Your task to perform on an android device: Go to display settings Image 0: 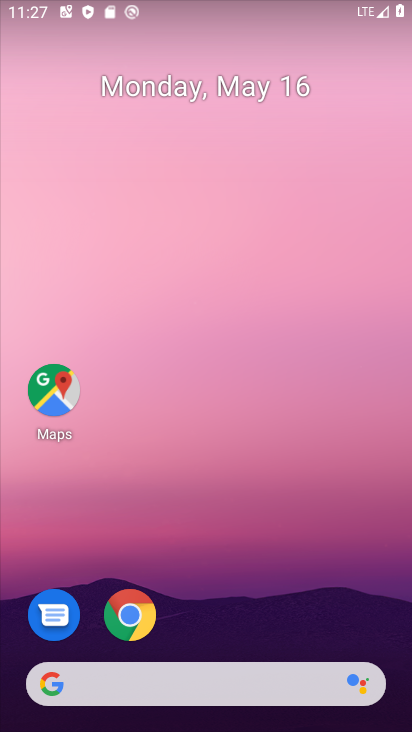
Step 0: drag from (226, 591) to (236, 129)
Your task to perform on an android device: Go to display settings Image 1: 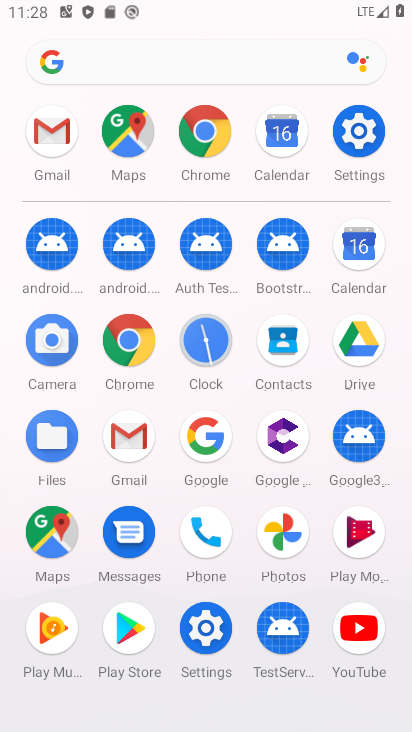
Step 1: click (197, 637)
Your task to perform on an android device: Go to display settings Image 2: 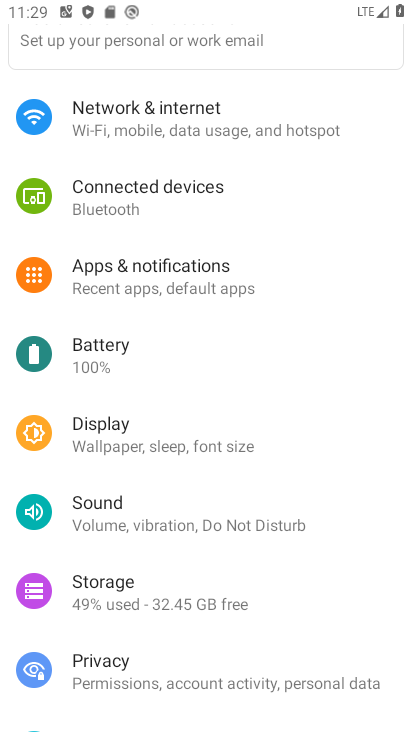
Step 2: click (126, 438)
Your task to perform on an android device: Go to display settings Image 3: 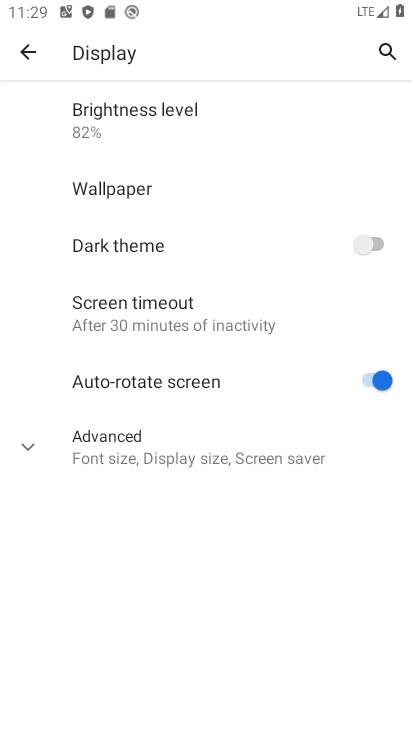
Step 3: task complete